Your task to perform on an android device: Go to sound settings Image 0: 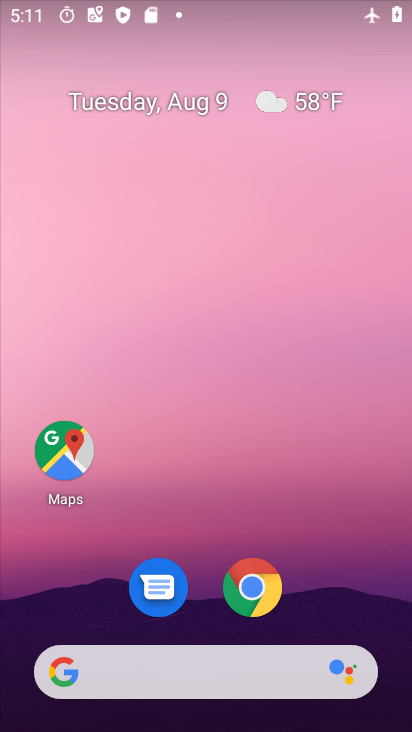
Step 0: drag from (230, 644) to (203, 42)
Your task to perform on an android device: Go to sound settings Image 1: 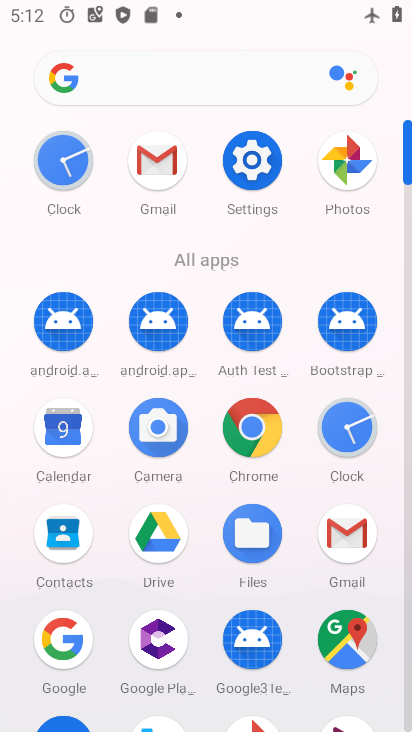
Step 1: click (263, 164)
Your task to perform on an android device: Go to sound settings Image 2: 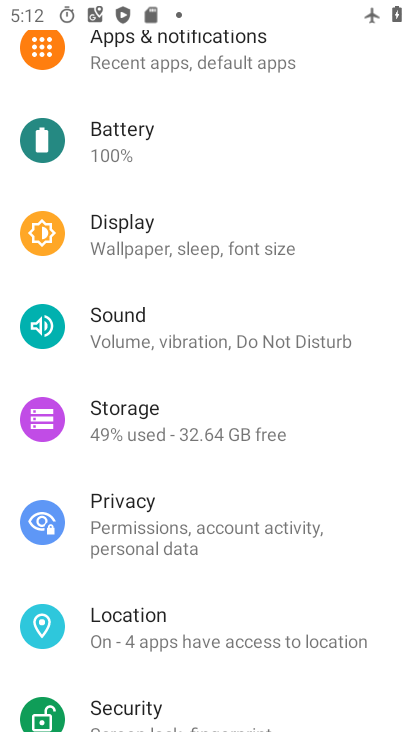
Step 2: click (173, 332)
Your task to perform on an android device: Go to sound settings Image 3: 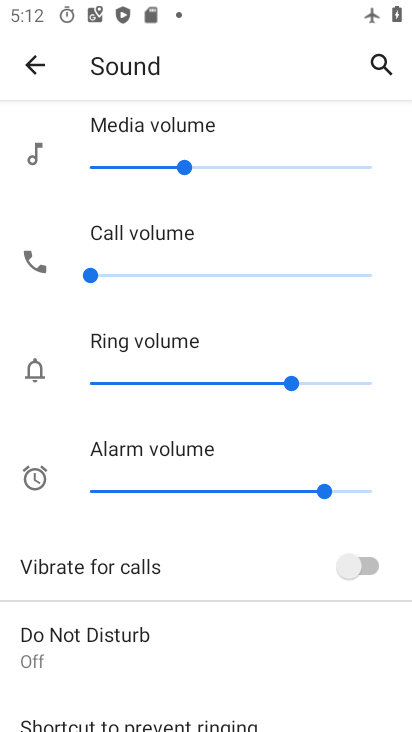
Step 3: task complete